Your task to perform on an android device: Open Wikipedia Image 0: 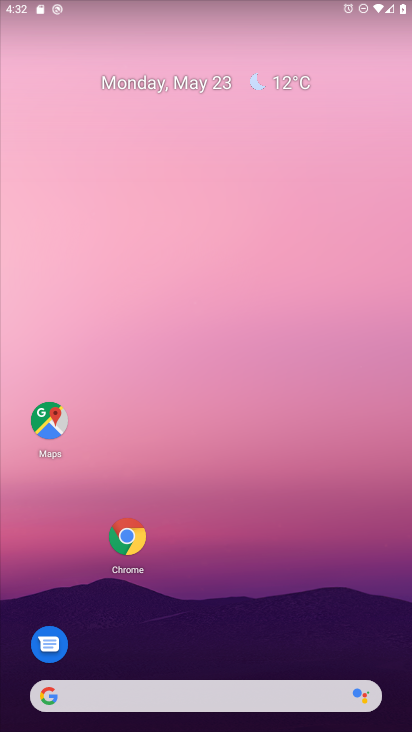
Step 0: click (123, 540)
Your task to perform on an android device: Open Wikipedia Image 1: 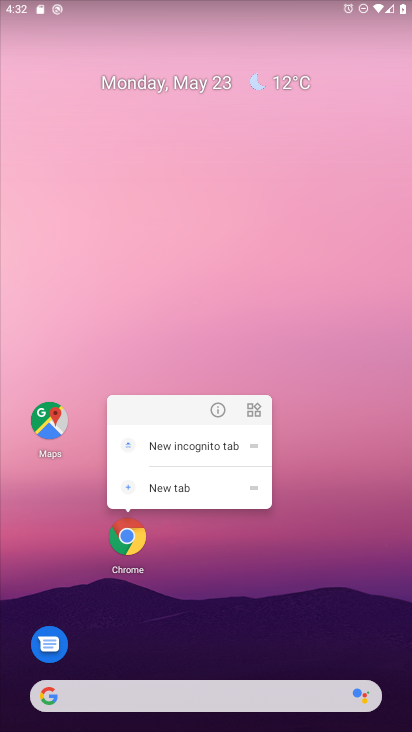
Step 1: click (124, 539)
Your task to perform on an android device: Open Wikipedia Image 2: 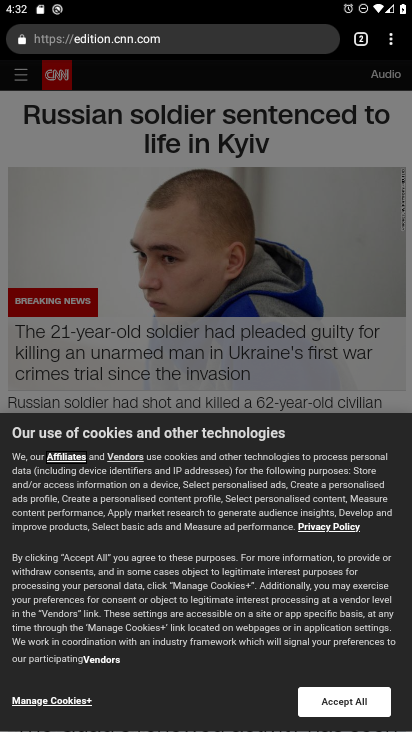
Step 2: click (235, 42)
Your task to perform on an android device: Open Wikipedia Image 3: 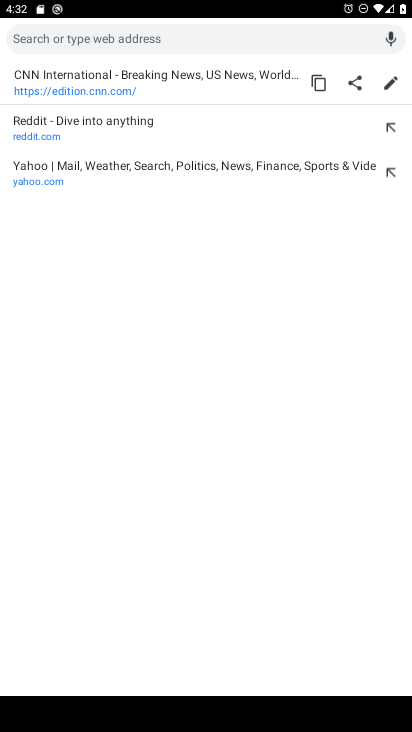
Step 3: type "wikipedia"
Your task to perform on an android device: Open Wikipedia Image 4: 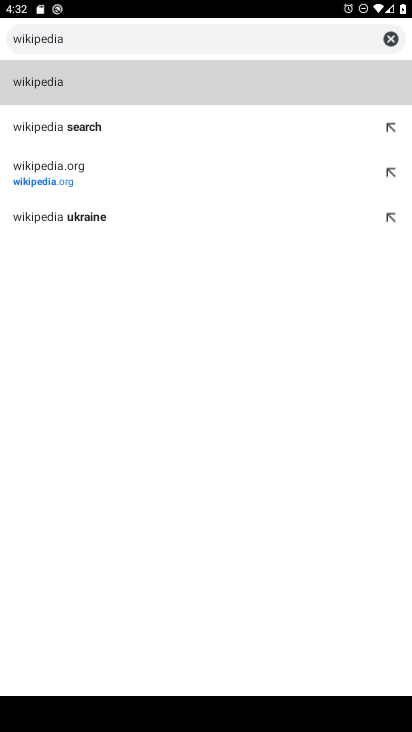
Step 4: click (41, 182)
Your task to perform on an android device: Open Wikipedia Image 5: 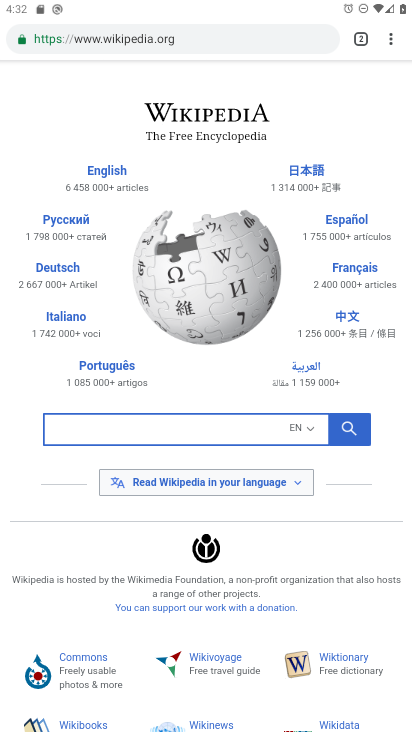
Step 5: task complete